Your task to perform on an android device: Go to Google maps Image 0: 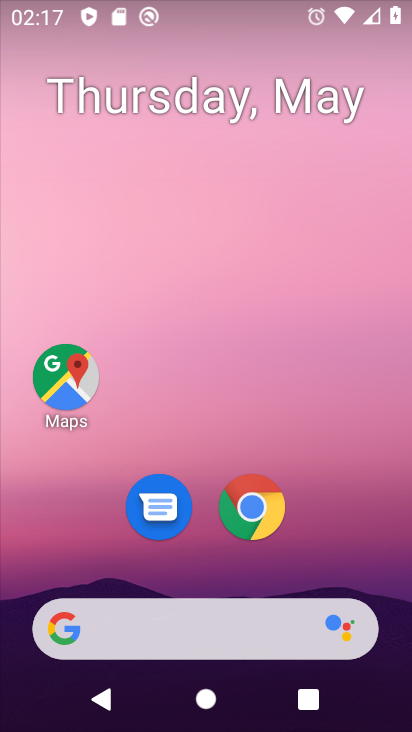
Step 0: drag from (367, 526) to (341, 126)
Your task to perform on an android device: Go to Google maps Image 1: 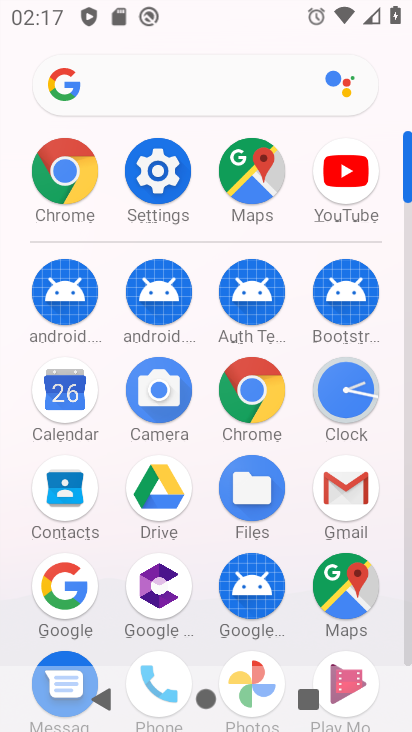
Step 1: click (261, 654)
Your task to perform on an android device: Go to Google maps Image 2: 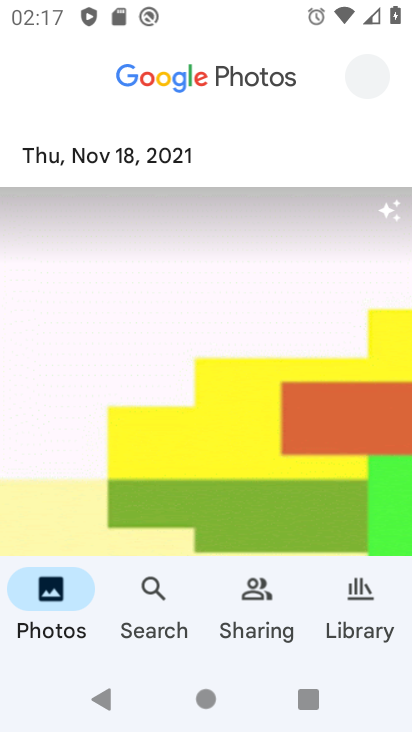
Step 2: press home button
Your task to perform on an android device: Go to Google maps Image 3: 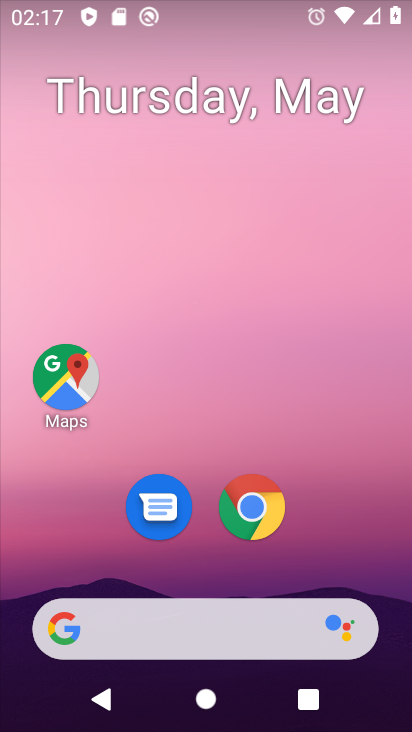
Step 3: click (51, 374)
Your task to perform on an android device: Go to Google maps Image 4: 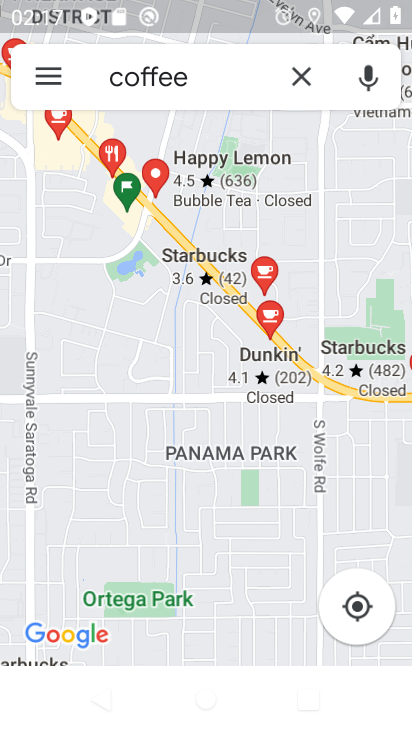
Step 4: task complete